Your task to perform on an android device: snooze an email in the gmail app Image 0: 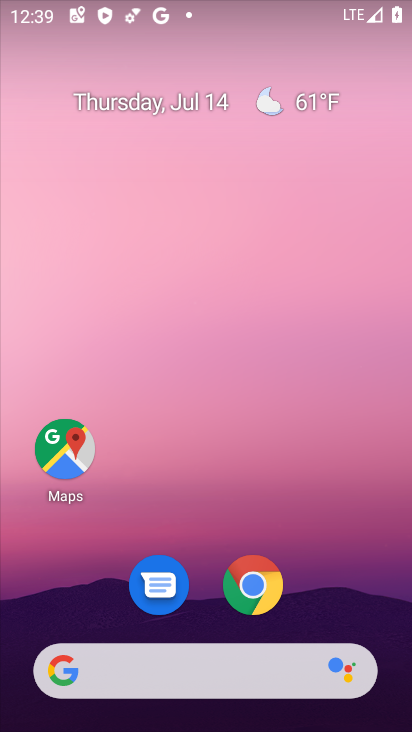
Step 0: drag from (347, 542) to (282, 61)
Your task to perform on an android device: snooze an email in the gmail app Image 1: 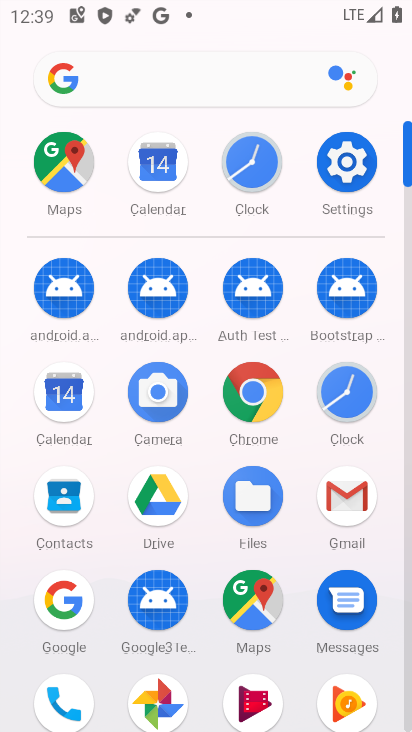
Step 1: click (331, 483)
Your task to perform on an android device: snooze an email in the gmail app Image 2: 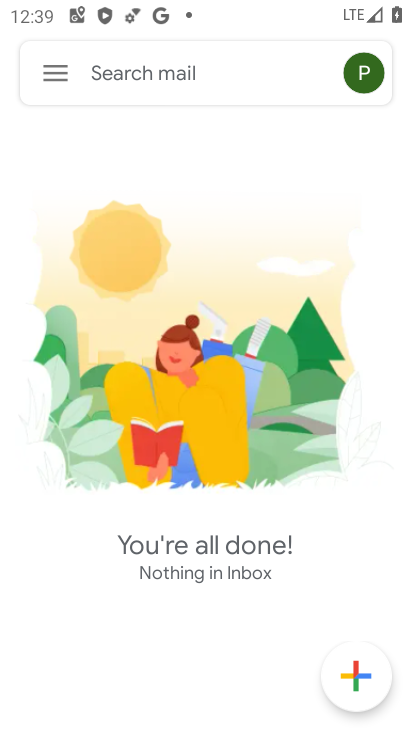
Step 2: click (50, 67)
Your task to perform on an android device: snooze an email in the gmail app Image 3: 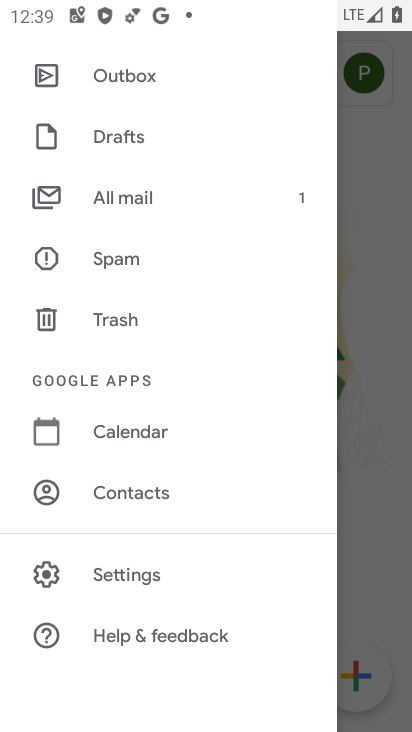
Step 3: click (111, 189)
Your task to perform on an android device: snooze an email in the gmail app Image 4: 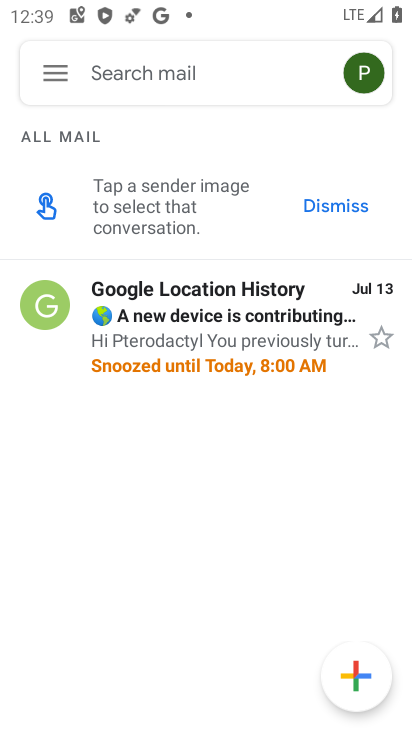
Step 4: task complete